Your task to perform on an android device: change timer sound Image 0: 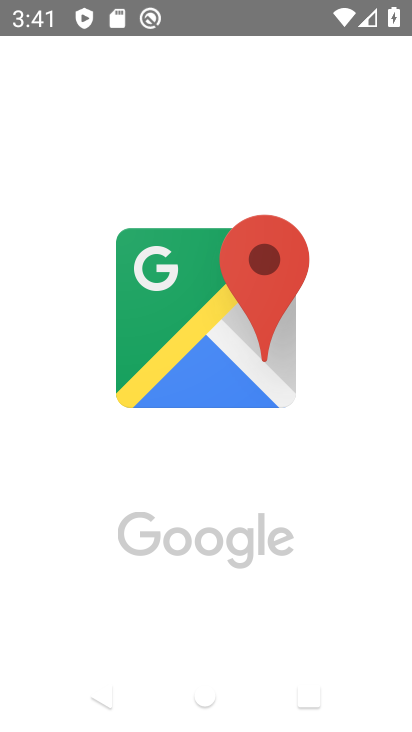
Step 0: press home button
Your task to perform on an android device: change timer sound Image 1: 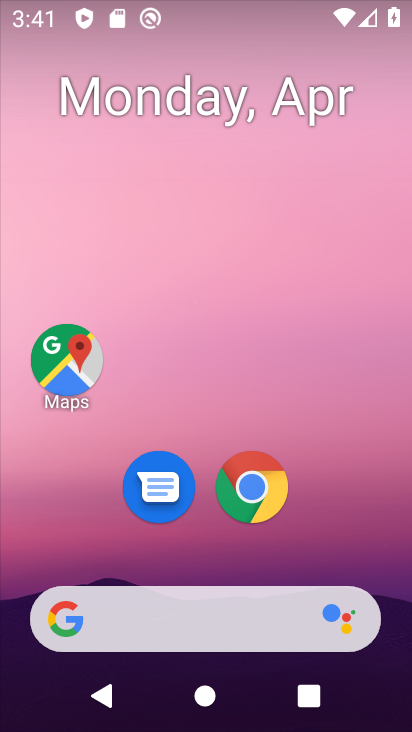
Step 1: drag from (205, 535) to (249, 14)
Your task to perform on an android device: change timer sound Image 2: 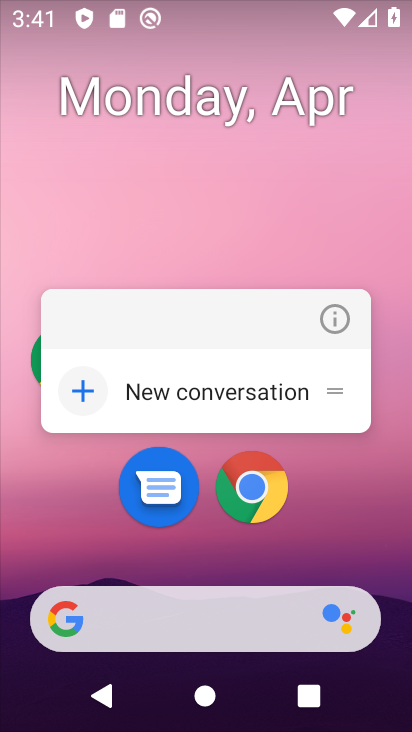
Step 2: click (234, 557)
Your task to perform on an android device: change timer sound Image 3: 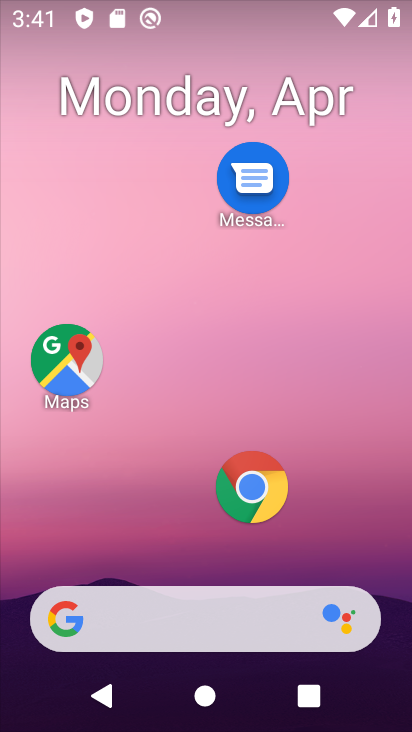
Step 3: drag from (194, 559) to (266, 4)
Your task to perform on an android device: change timer sound Image 4: 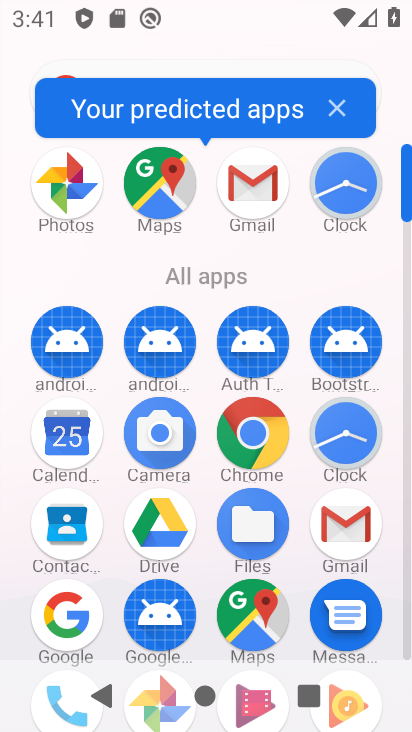
Step 4: click (346, 437)
Your task to perform on an android device: change timer sound Image 5: 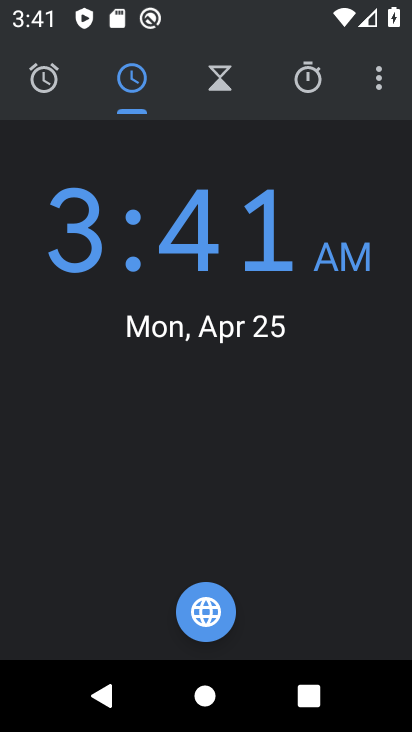
Step 5: click (373, 78)
Your task to perform on an android device: change timer sound Image 6: 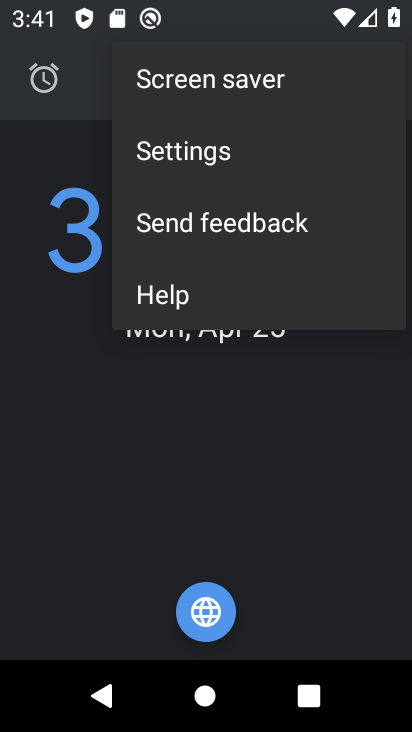
Step 6: click (182, 153)
Your task to perform on an android device: change timer sound Image 7: 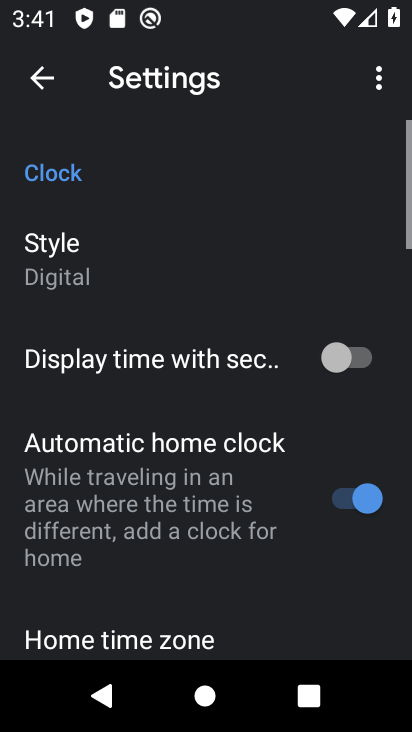
Step 7: drag from (185, 437) to (333, 21)
Your task to perform on an android device: change timer sound Image 8: 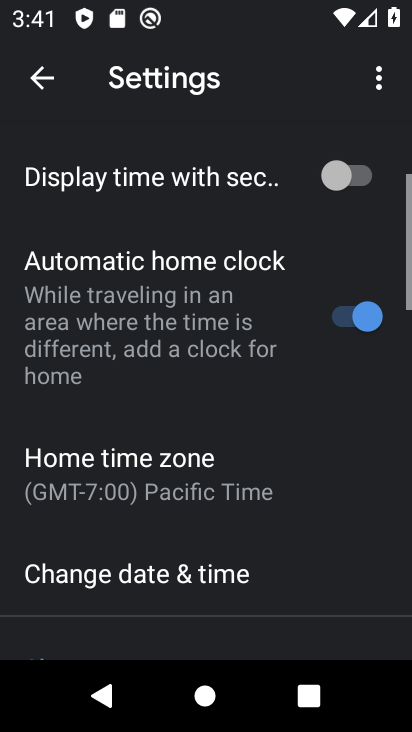
Step 8: drag from (177, 509) to (231, 120)
Your task to perform on an android device: change timer sound Image 9: 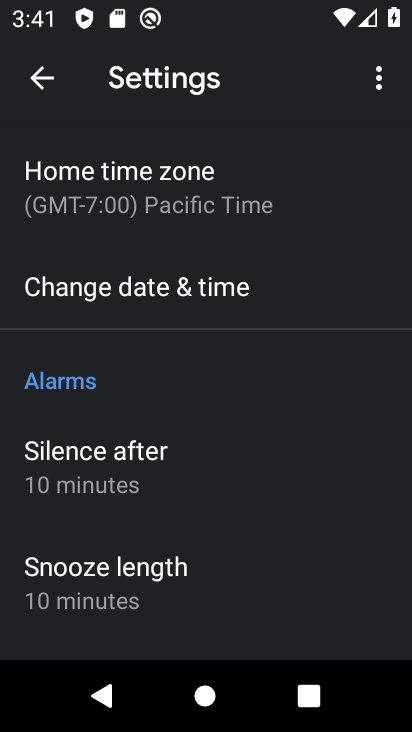
Step 9: drag from (190, 503) to (254, 56)
Your task to perform on an android device: change timer sound Image 10: 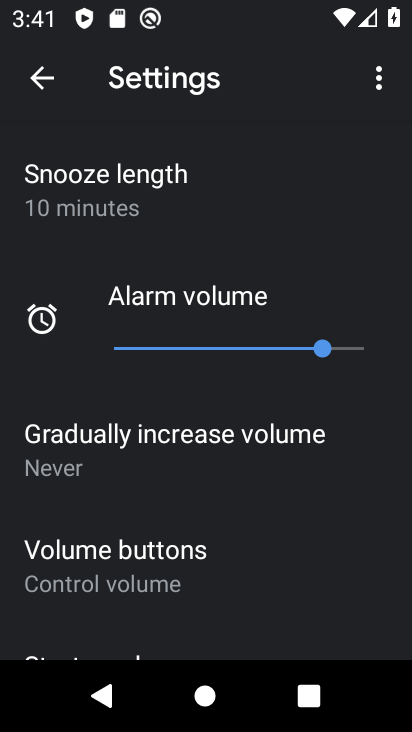
Step 10: drag from (168, 506) to (233, 72)
Your task to perform on an android device: change timer sound Image 11: 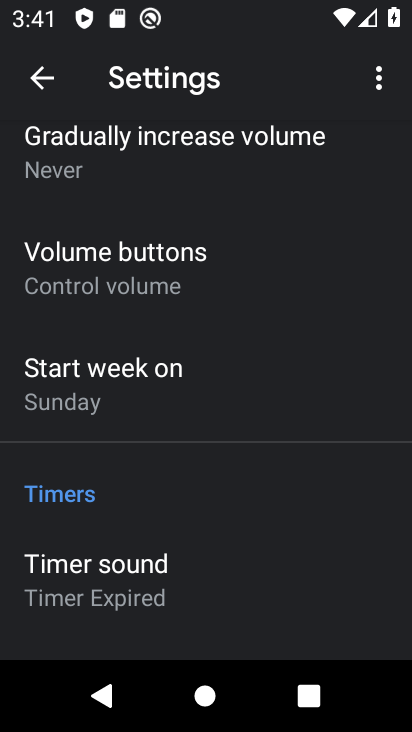
Step 11: click (157, 572)
Your task to perform on an android device: change timer sound Image 12: 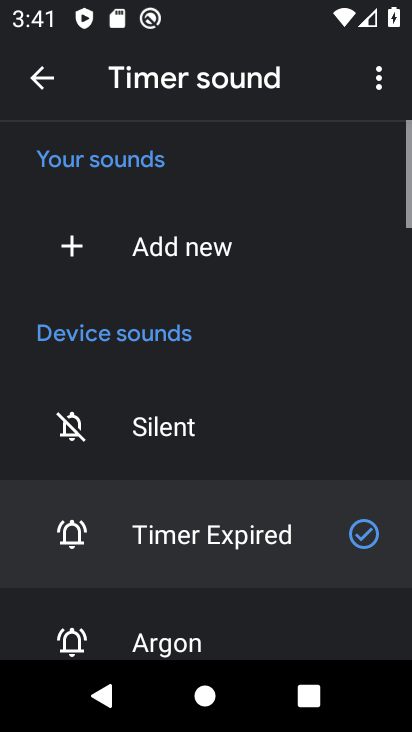
Step 12: drag from (172, 543) to (244, 234)
Your task to perform on an android device: change timer sound Image 13: 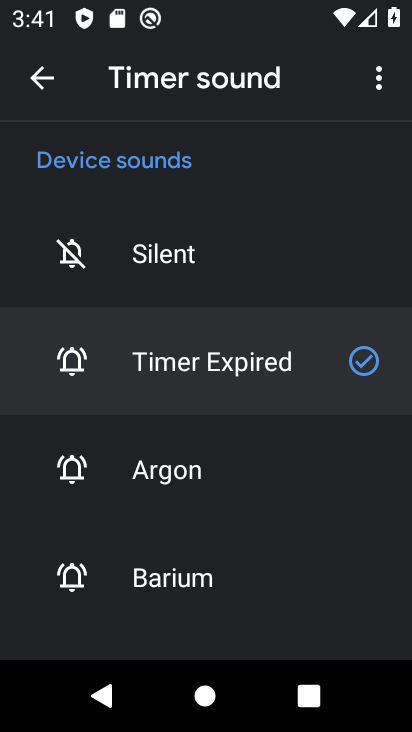
Step 13: click (198, 584)
Your task to perform on an android device: change timer sound Image 14: 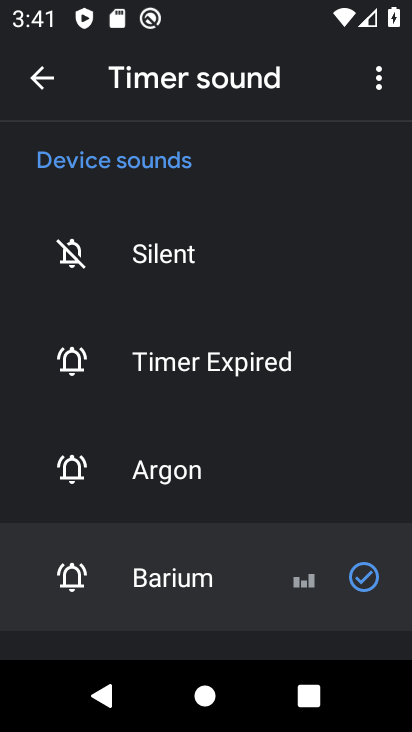
Step 14: task complete